Your task to perform on an android device: When is my next appointment? Image 0: 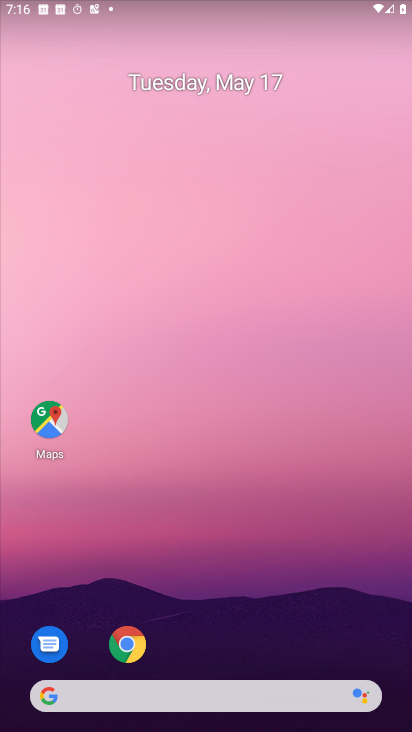
Step 0: drag from (342, 641) to (264, 7)
Your task to perform on an android device: When is my next appointment? Image 1: 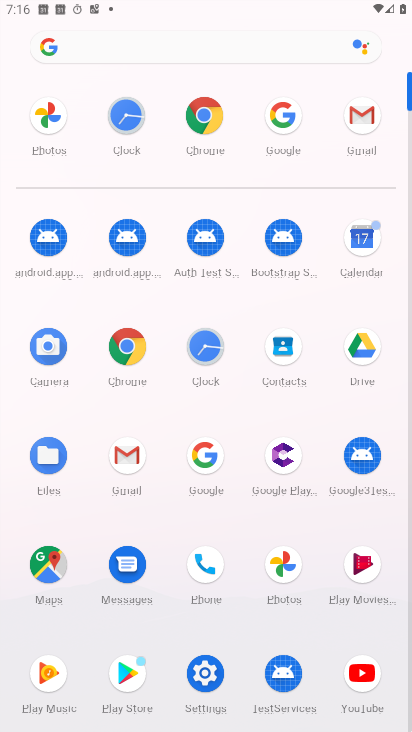
Step 1: click (352, 246)
Your task to perform on an android device: When is my next appointment? Image 2: 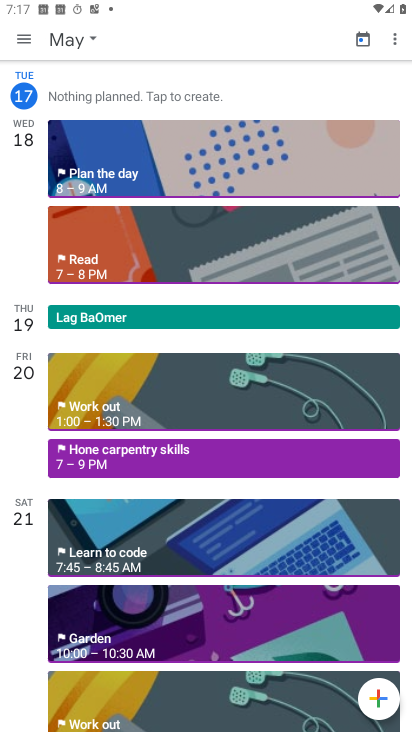
Step 2: task complete